Your task to perform on an android device: Open Wikipedia Image 0: 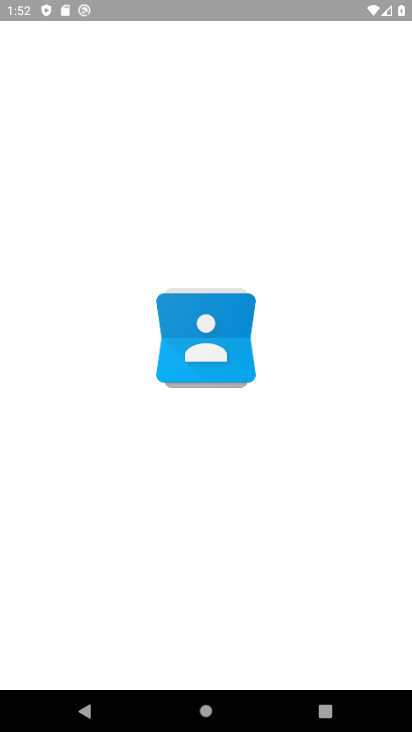
Step 0: press home button
Your task to perform on an android device: Open Wikipedia Image 1: 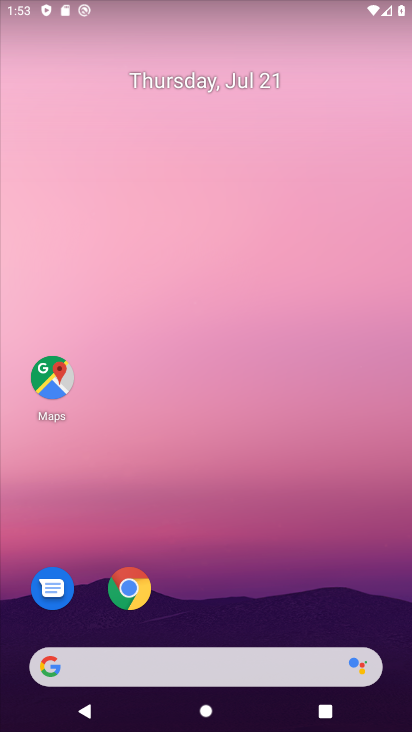
Step 1: click (122, 615)
Your task to perform on an android device: Open Wikipedia Image 2: 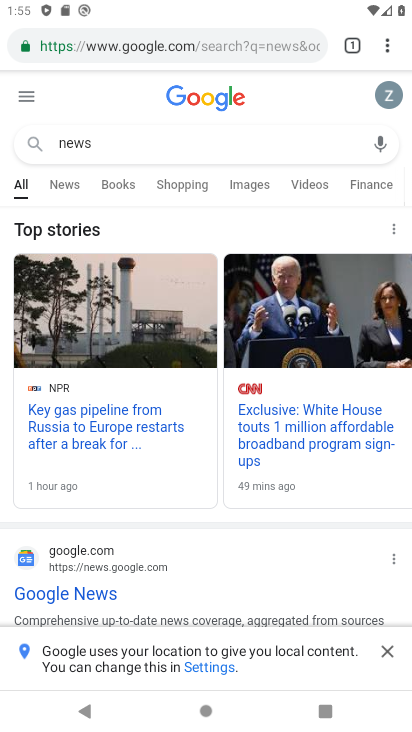
Step 2: click (264, 52)
Your task to perform on an android device: Open Wikipedia Image 3: 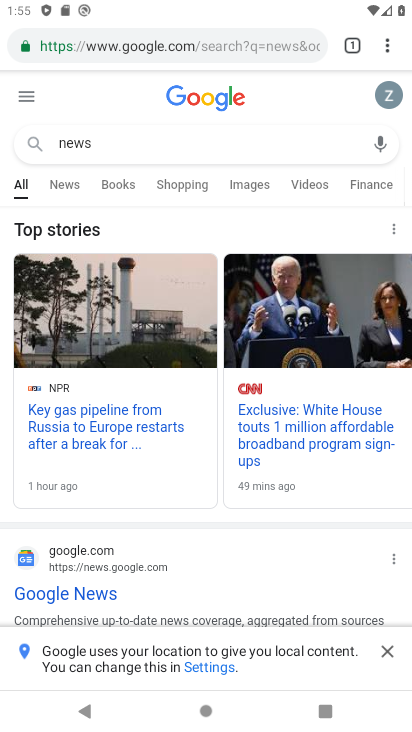
Step 3: click (164, 34)
Your task to perform on an android device: Open Wikipedia Image 4: 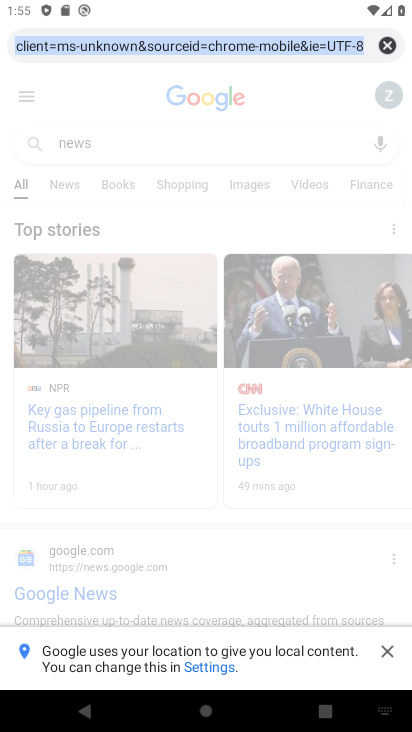
Step 4: type "Wikipedia"
Your task to perform on an android device: Open Wikipedia Image 5: 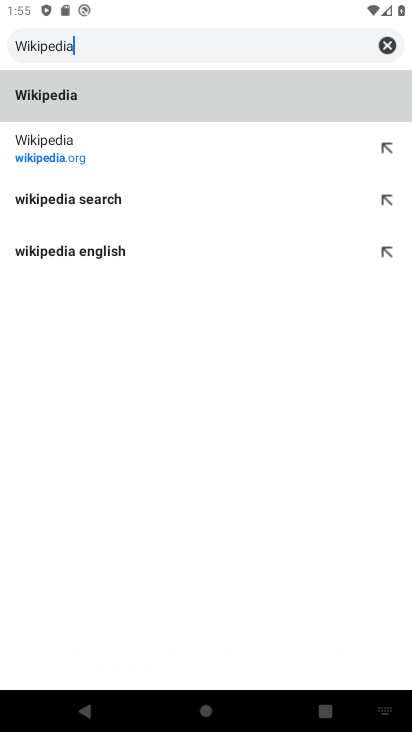
Step 5: type ""
Your task to perform on an android device: Open Wikipedia Image 6: 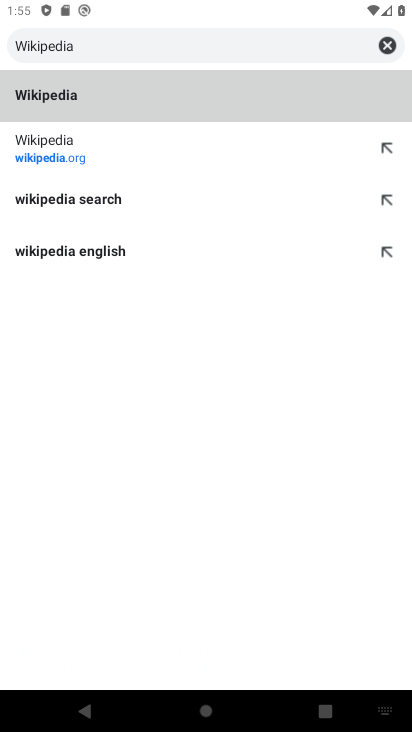
Step 6: click (30, 137)
Your task to perform on an android device: Open Wikipedia Image 7: 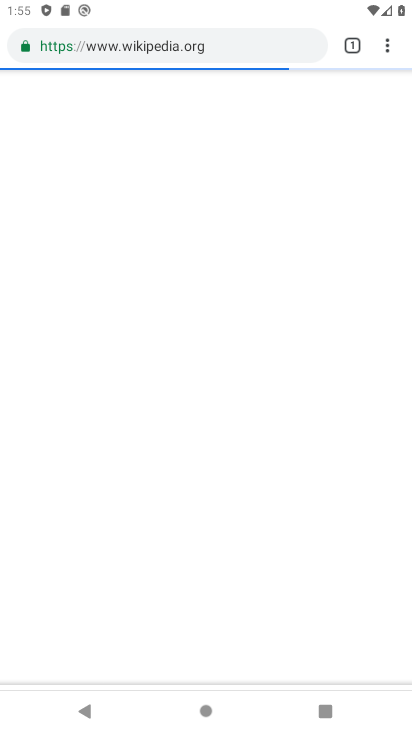
Step 7: task complete